Your task to perform on an android device: Go to battery settings Image 0: 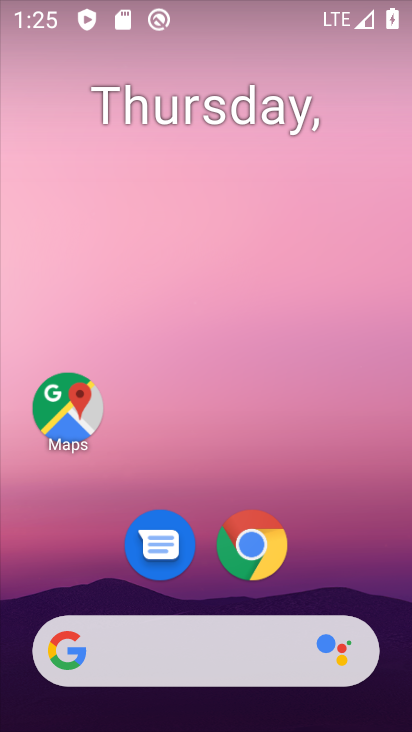
Step 0: drag from (216, 719) to (177, 137)
Your task to perform on an android device: Go to battery settings Image 1: 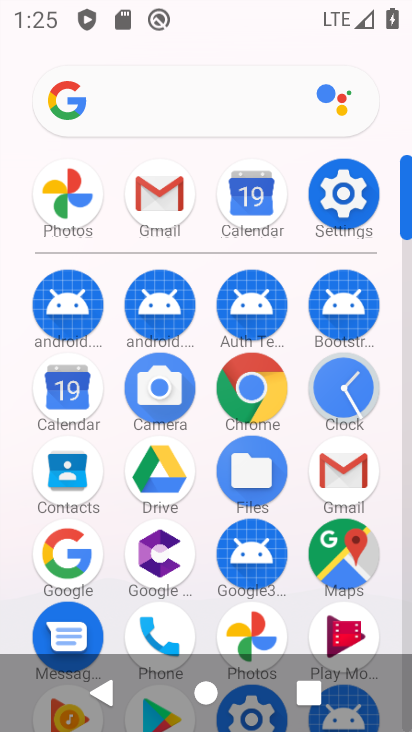
Step 1: click (348, 177)
Your task to perform on an android device: Go to battery settings Image 2: 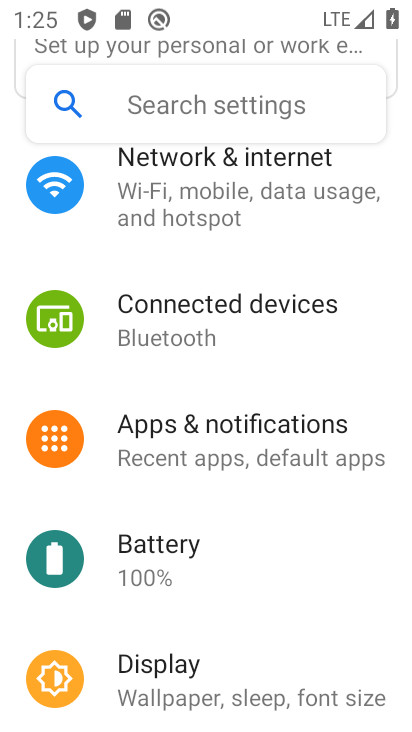
Step 2: click (216, 545)
Your task to perform on an android device: Go to battery settings Image 3: 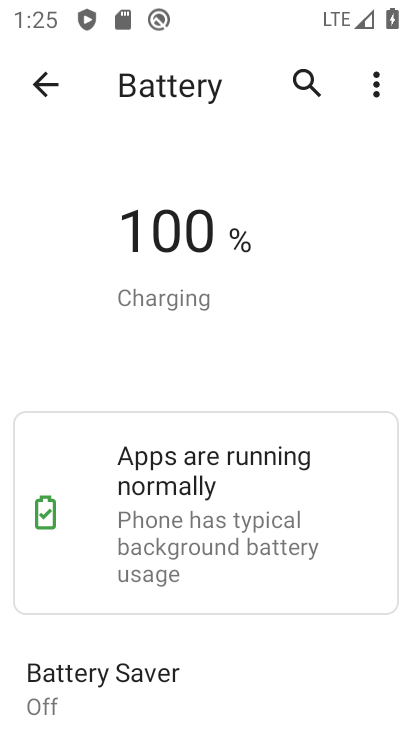
Step 3: task complete